Your task to perform on an android device: Open the Play Movies app and select the watchlist tab. Image 0: 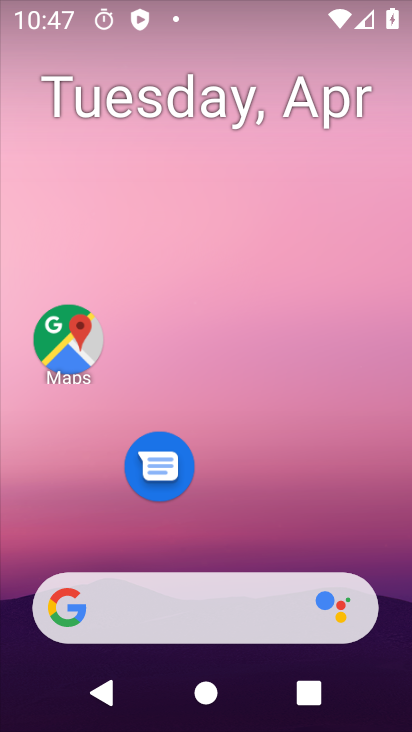
Step 0: drag from (307, 534) to (360, 15)
Your task to perform on an android device: Open the Play Movies app and select the watchlist tab. Image 1: 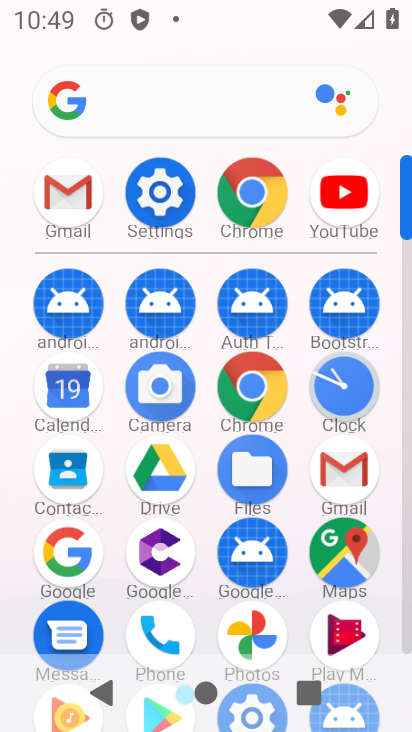
Step 1: click (405, 485)
Your task to perform on an android device: Open the Play Movies app and select the watchlist tab. Image 2: 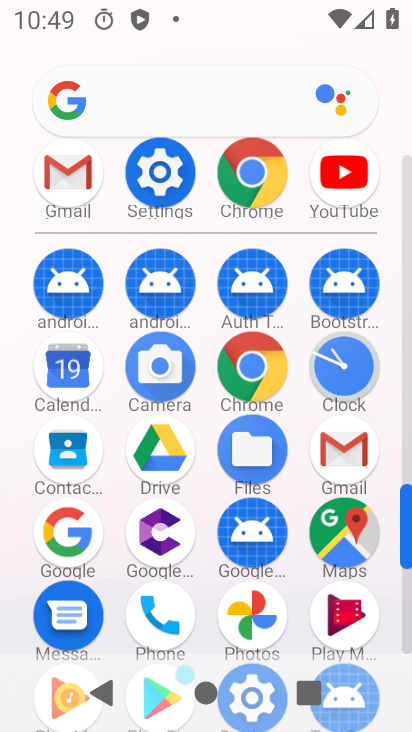
Step 2: click (405, 485)
Your task to perform on an android device: Open the Play Movies app and select the watchlist tab. Image 3: 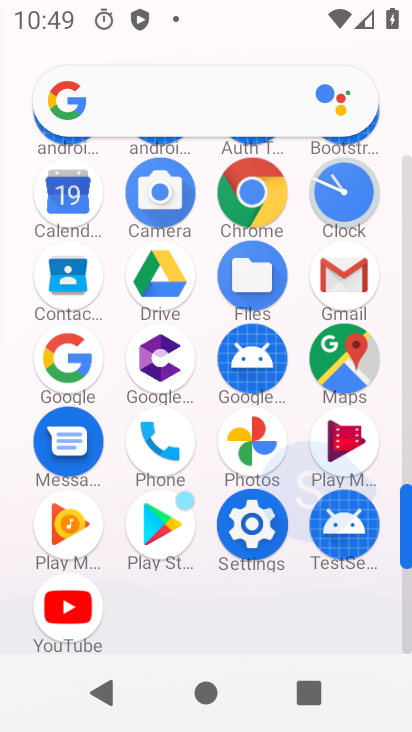
Step 3: click (405, 485)
Your task to perform on an android device: Open the Play Movies app and select the watchlist tab. Image 4: 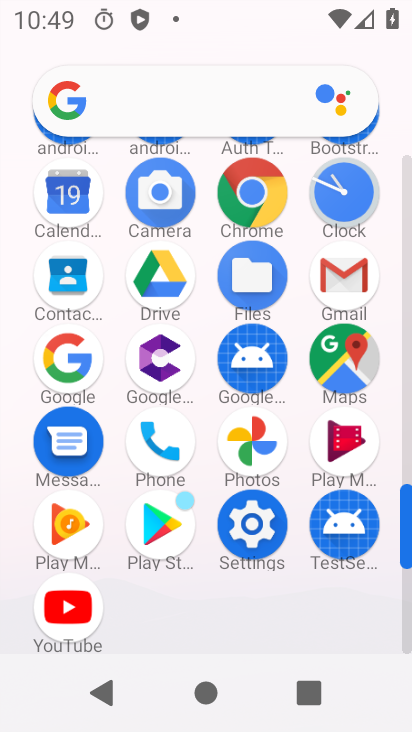
Step 4: click (334, 452)
Your task to perform on an android device: Open the Play Movies app and select the watchlist tab. Image 5: 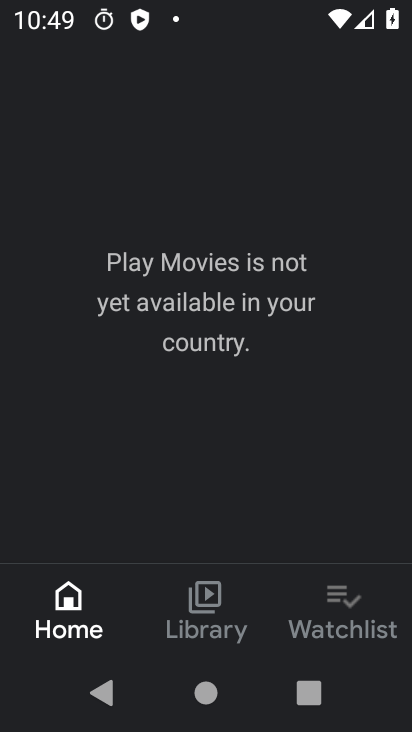
Step 5: click (348, 608)
Your task to perform on an android device: Open the Play Movies app and select the watchlist tab. Image 6: 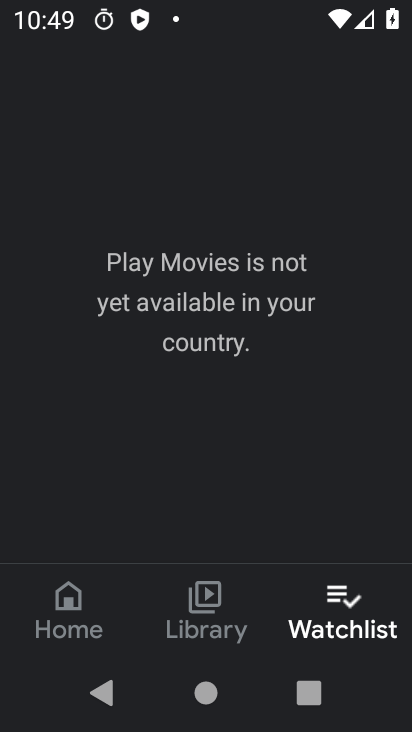
Step 6: task complete